Your task to perform on an android device: delete browsing data in the chrome app Image 0: 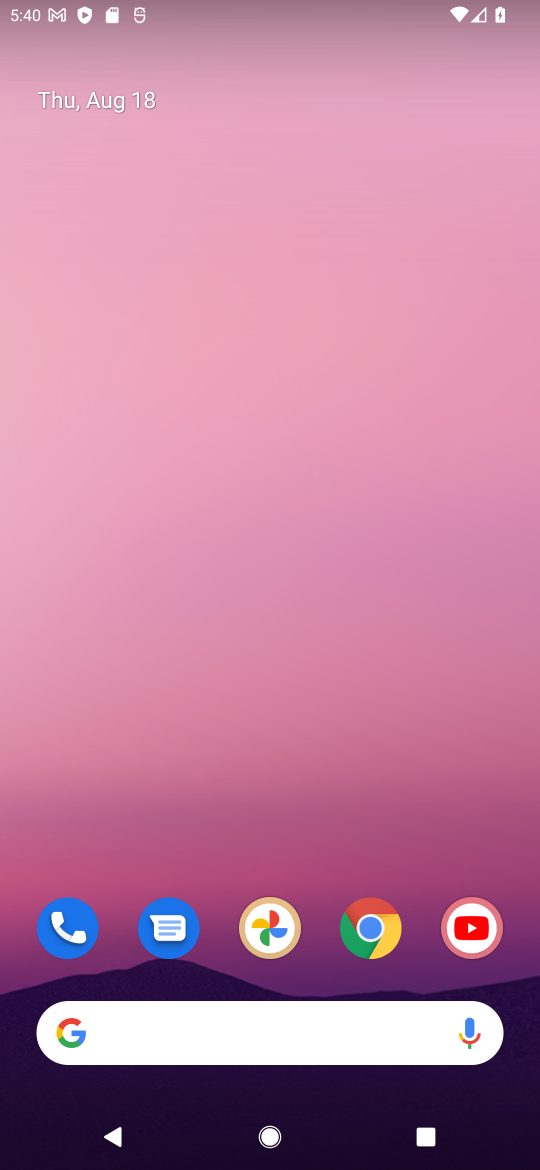
Step 0: drag from (294, 861) to (330, 48)
Your task to perform on an android device: delete browsing data in the chrome app Image 1: 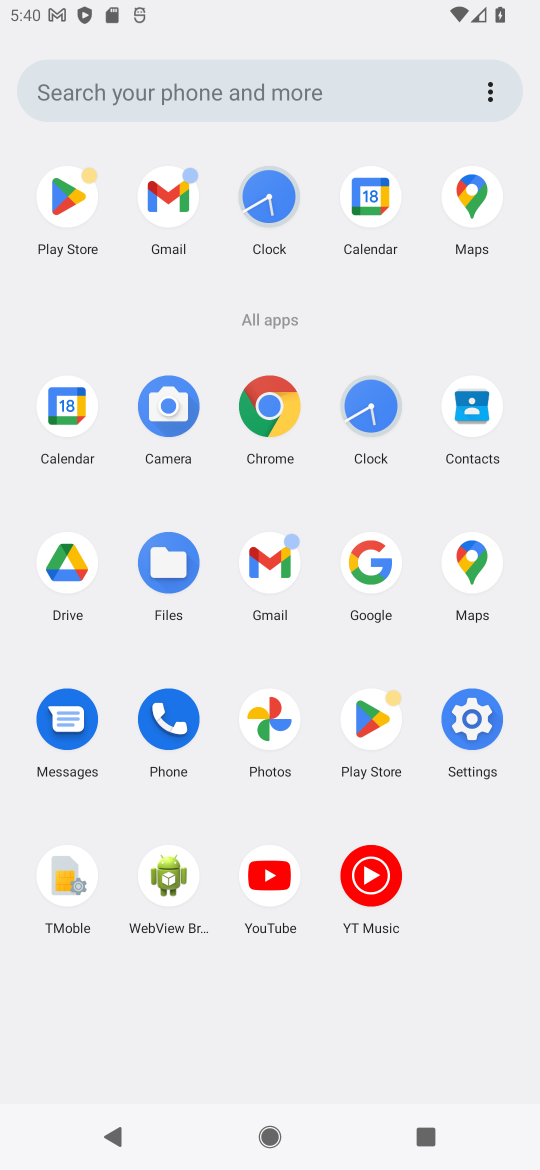
Step 1: click (264, 406)
Your task to perform on an android device: delete browsing data in the chrome app Image 2: 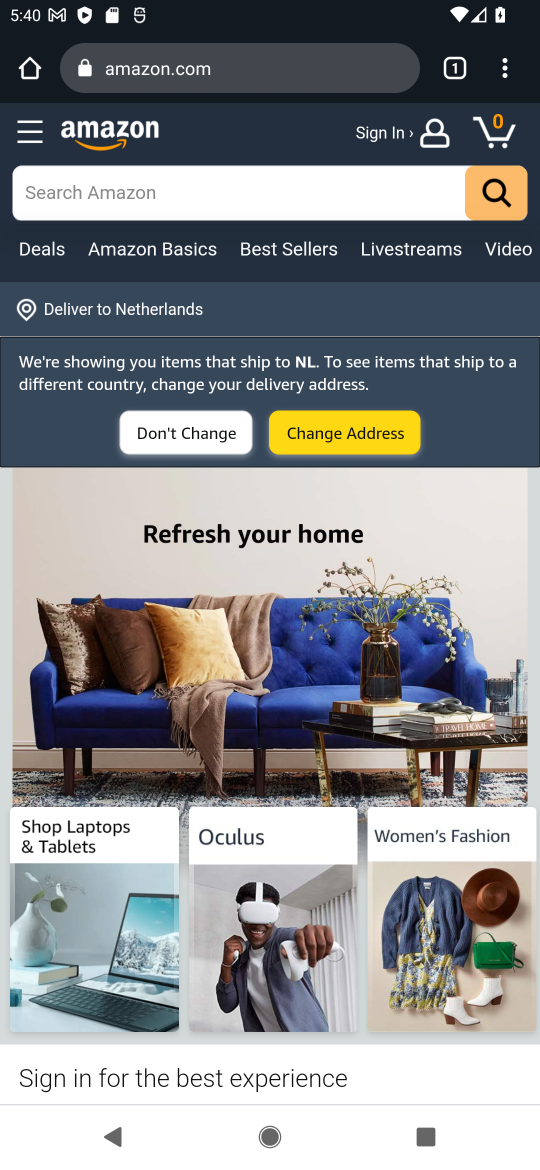
Step 2: drag from (504, 72) to (315, 264)
Your task to perform on an android device: delete browsing data in the chrome app Image 3: 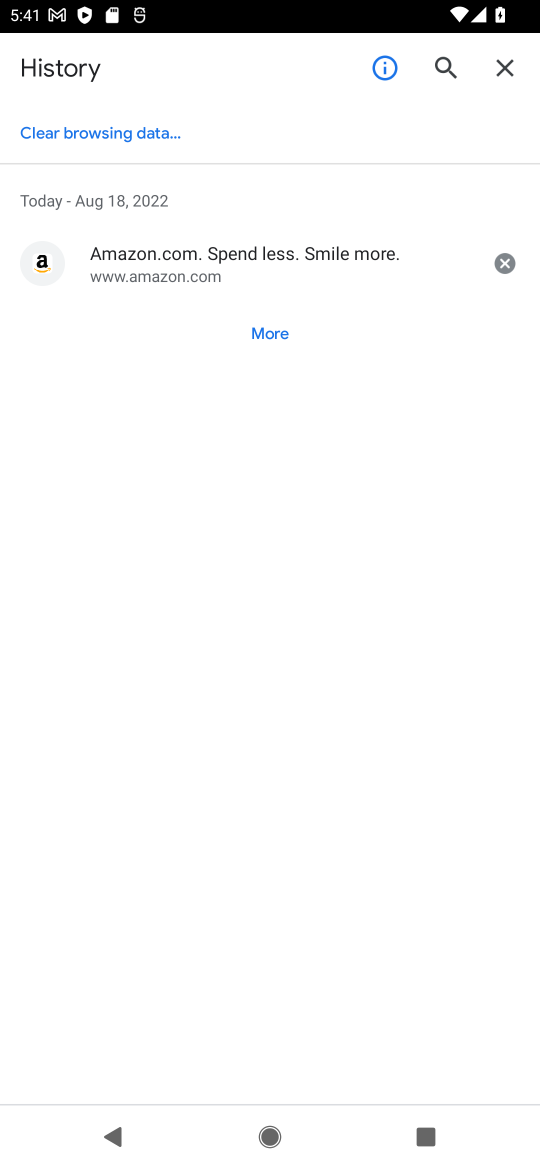
Step 3: click (127, 135)
Your task to perform on an android device: delete browsing data in the chrome app Image 4: 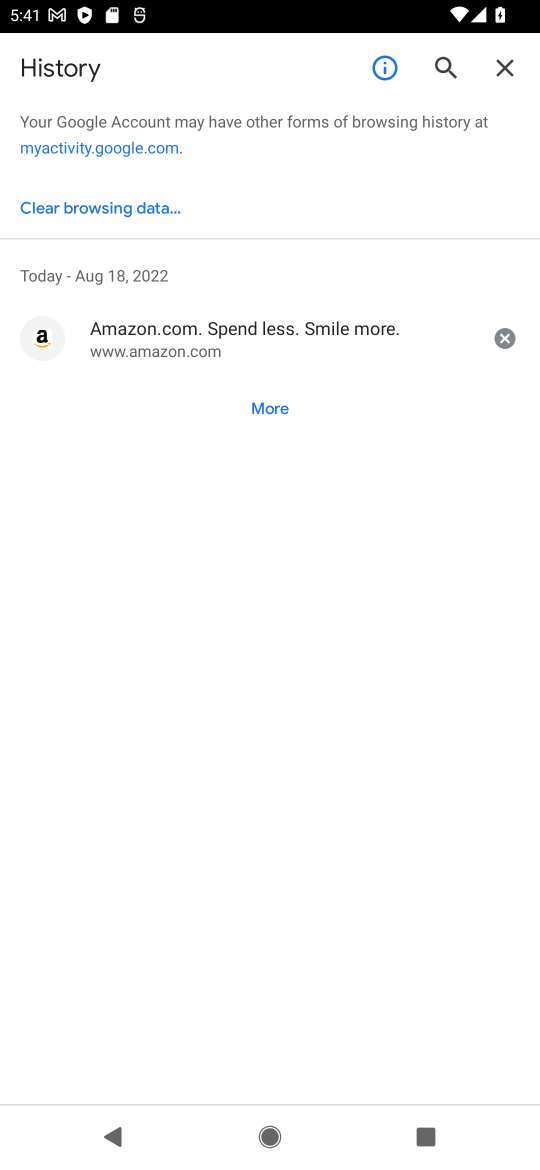
Step 4: click (154, 207)
Your task to perform on an android device: delete browsing data in the chrome app Image 5: 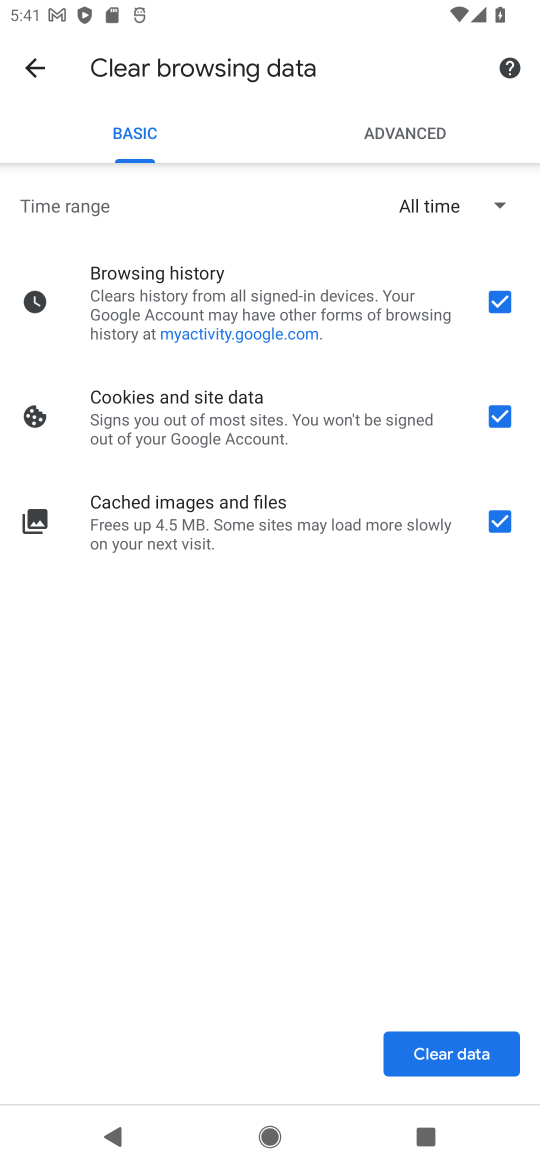
Step 5: click (473, 1069)
Your task to perform on an android device: delete browsing data in the chrome app Image 6: 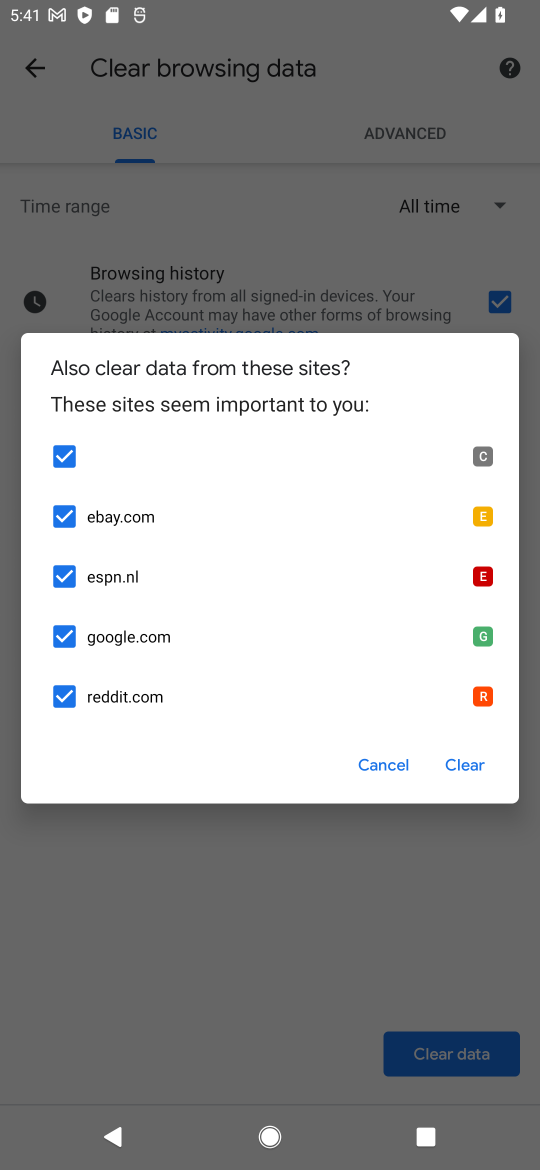
Step 6: click (466, 762)
Your task to perform on an android device: delete browsing data in the chrome app Image 7: 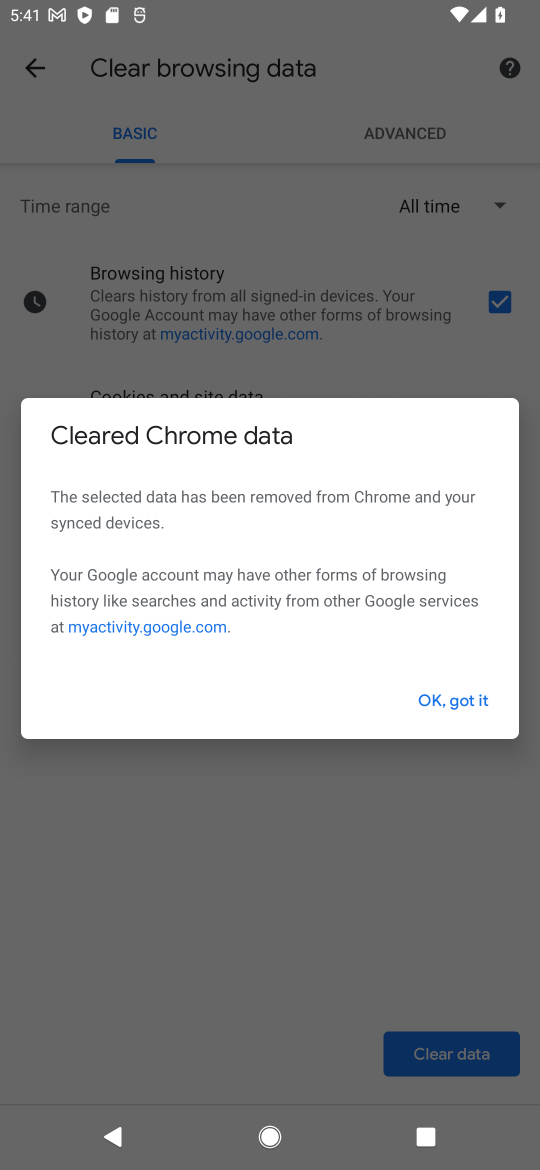
Step 7: click (461, 695)
Your task to perform on an android device: delete browsing data in the chrome app Image 8: 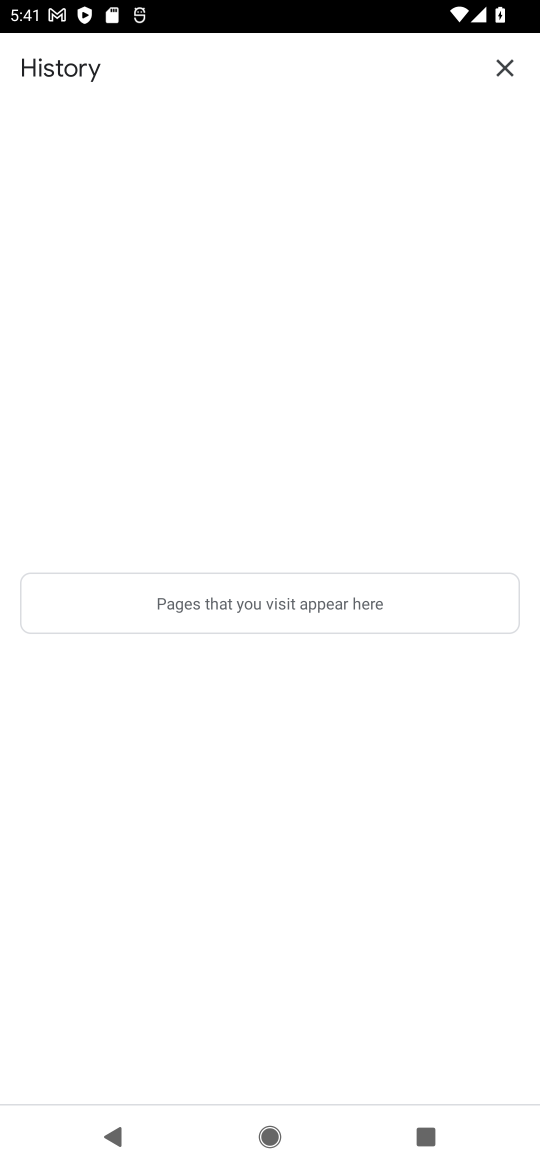
Step 8: task complete